Your task to perform on an android device: Open privacy settings Image 0: 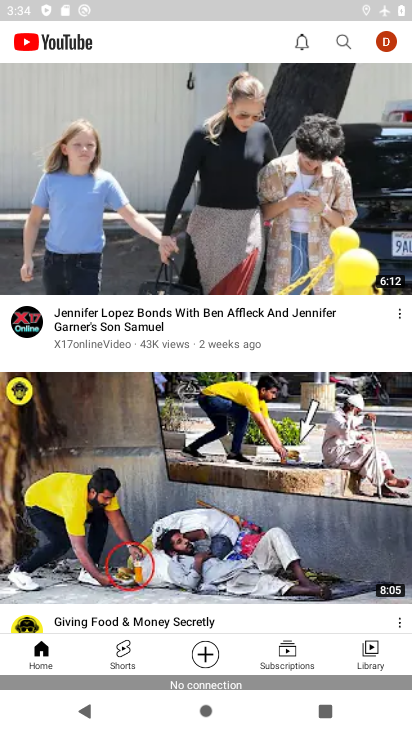
Step 0: press home button
Your task to perform on an android device: Open privacy settings Image 1: 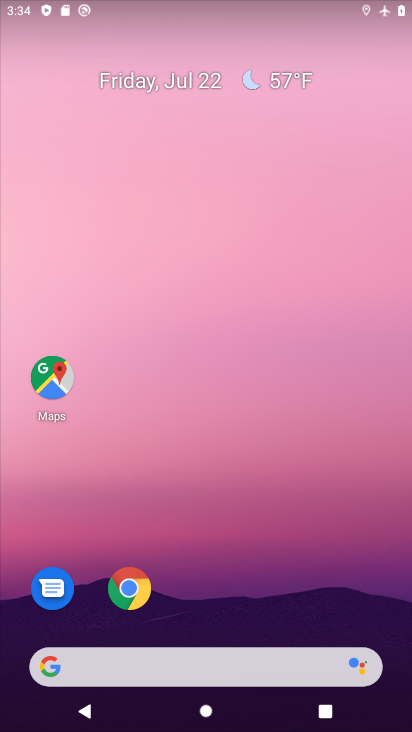
Step 1: drag from (224, 625) to (189, 97)
Your task to perform on an android device: Open privacy settings Image 2: 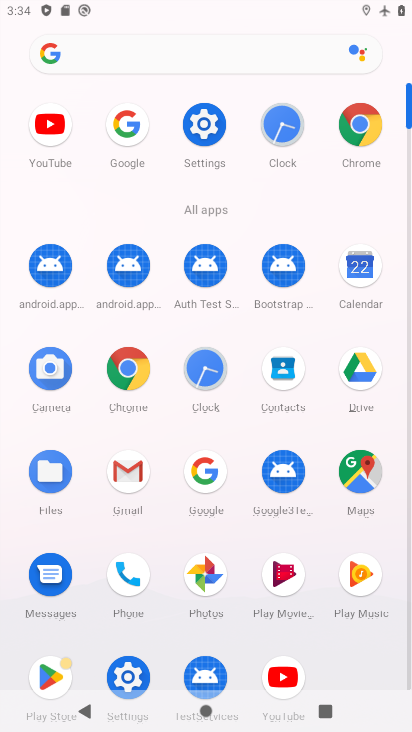
Step 2: click (124, 663)
Your task to perform on an android device: Open privacy settings Image 3: 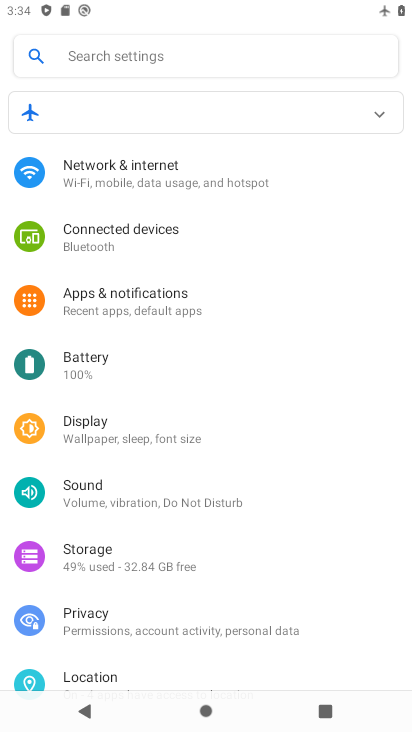
Step 3: click (142, 620)
Your task to perform on an android device: Open privacy settings Image 4: 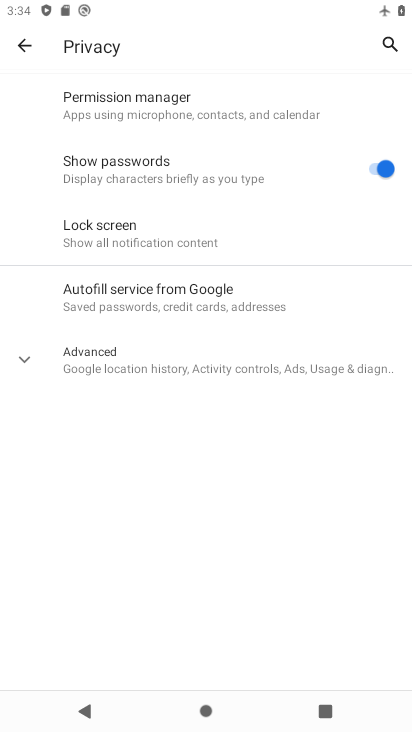
Step 4: task complete